Your task to perform on an android device: Open Yahoo.com Image 0: 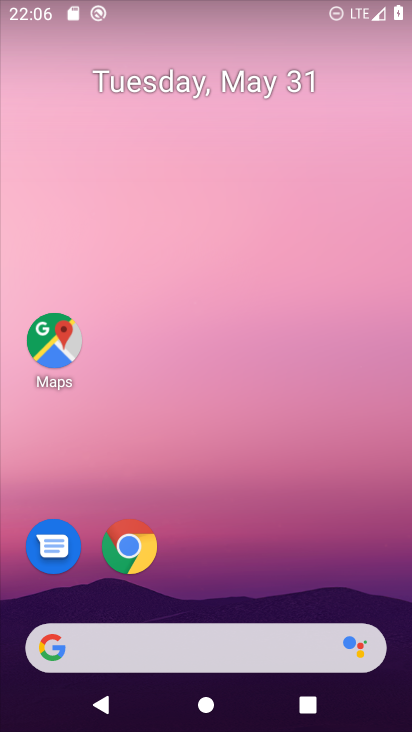
Step 0: click (128, 546)
Your task to perform on an android device: Open Yahoo.com Image 1: 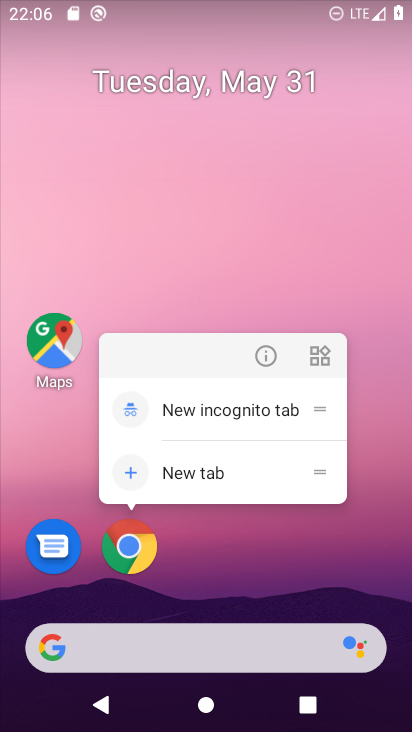
Step 1: click (120, 545)
Your task to perform on an android device: Open Yahoo.com Image 2: 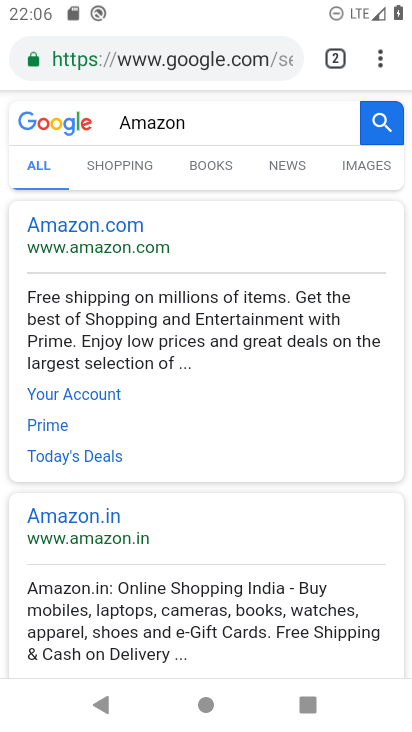
Step 2: click (292, 56)
Your task to perform on an android device: Open Yahoo.com Image 3: 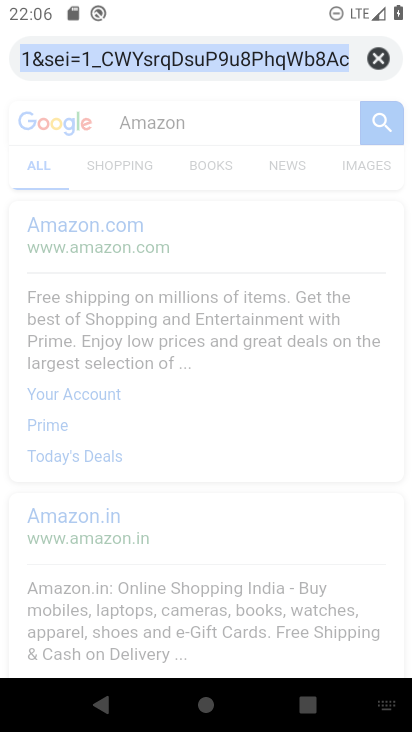
Step 3: click (385, 57)
Your task to perform on an android device: Open Yahoo.com Image 4: 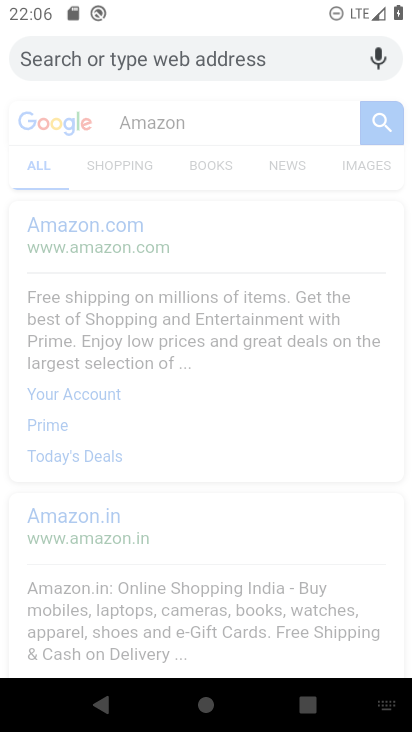
Step 4: type "Yahoo.com"
Your task to perform on an android device: Open Yahoo.com Image 5: 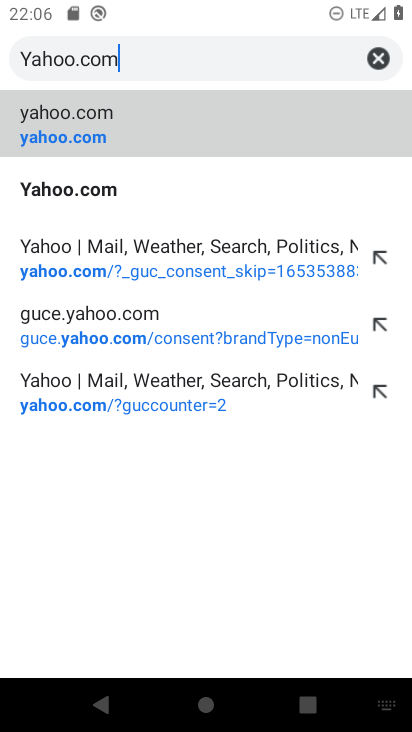
Step 5: click (103, 194)
Your task to perform on an android device: Open Yahoo.com Image 6: 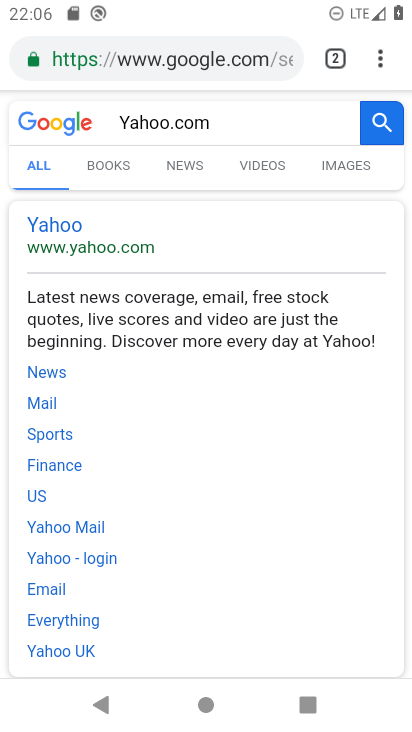
Step 6: task complete